Your task to perform on an android device: check google app version Image 0: 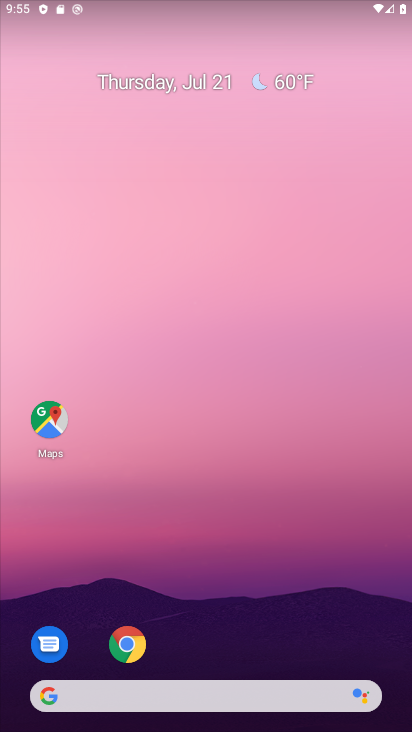
Step 0: click (254, 304)
Your task to perform on an android device: check google app version Image 1: 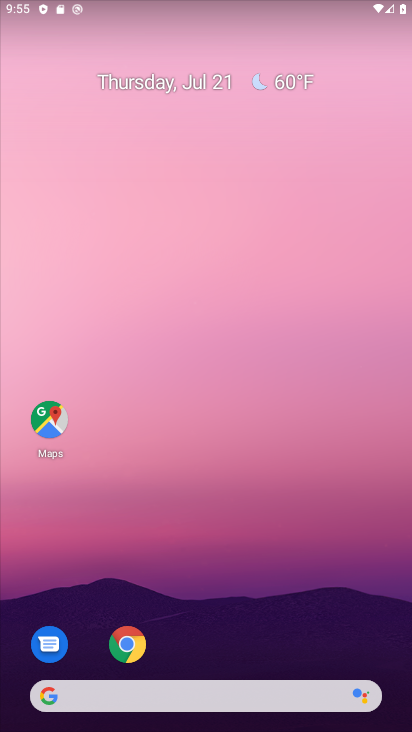
Step 1: click (43, 693)
Your task to perform on an android device: check google app version Image 2: 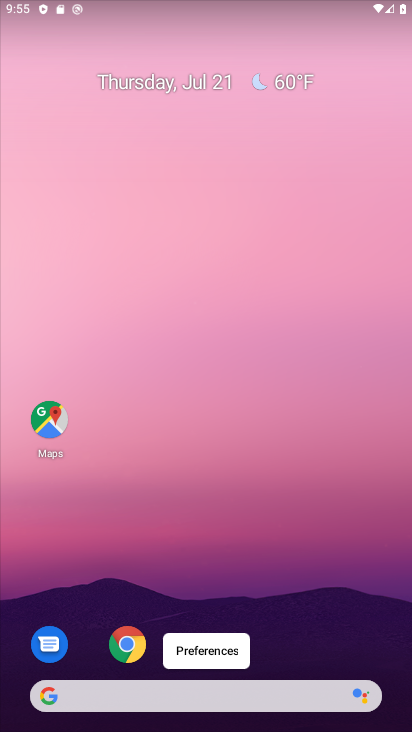
Step 2: click (46, 698)
Your task to perform on an android device: check google app version Image 3: 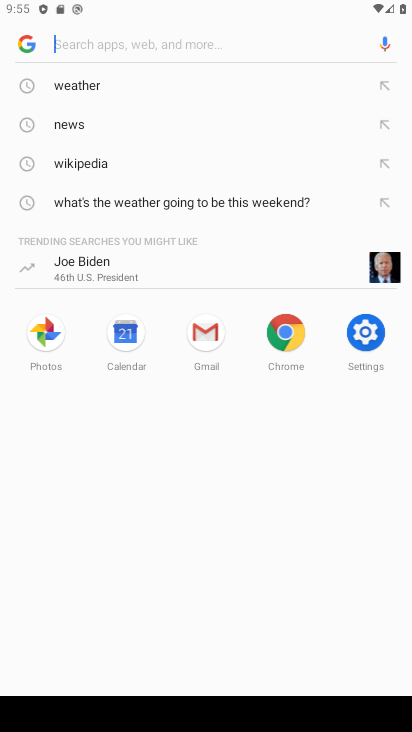
Step 3: click (25, 38)
Your task to perform on an android device: check google app version Image 4: 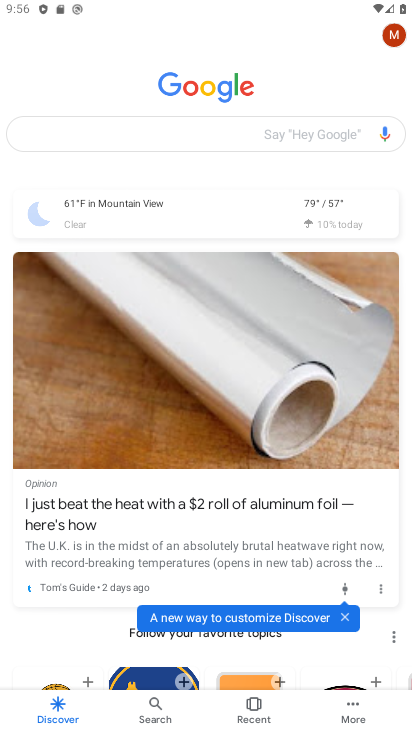
Step 4: click (355, 714)
Your task to perform on an android device: check google app version Image 5: 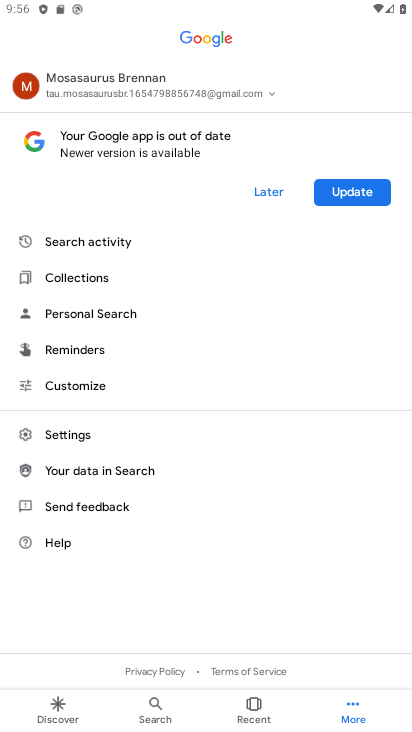
Step 5: click (77, 438)
Your task to perform on an android device: check google app version Image 6: 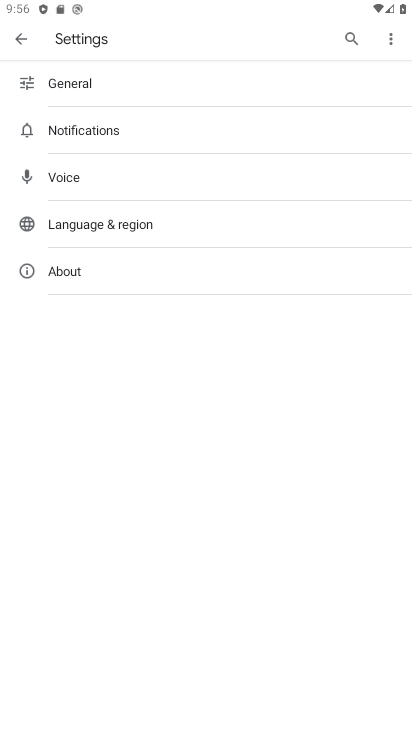
Step 6: click (74, 273)
Your task to perform on an android device: check google app version Image 7: 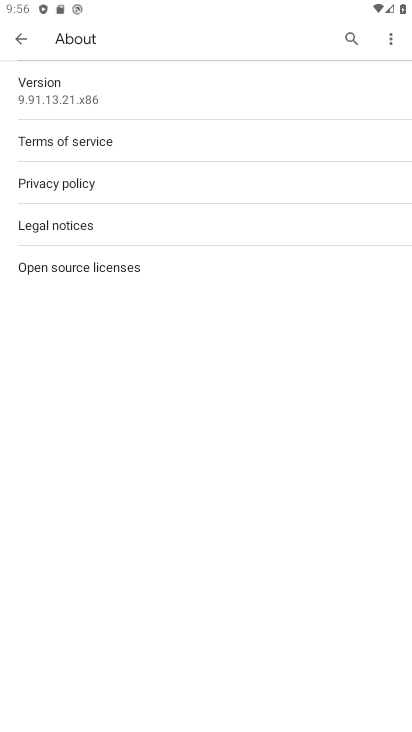
Step 7: task complete